Your task to perform on an android device: add a contact Image 0: 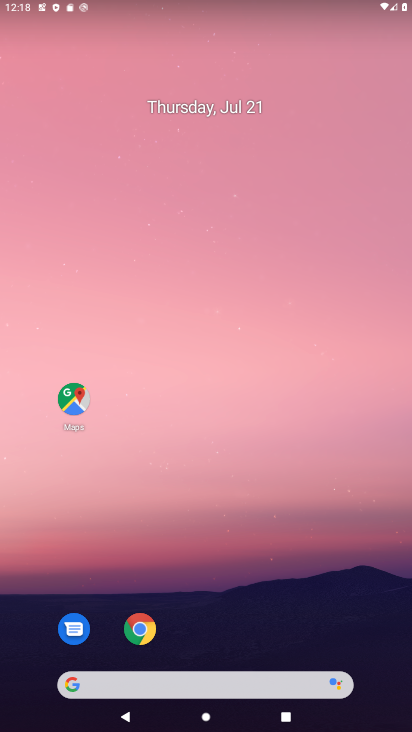
Step 0: drag from (347, 580) to (348, 142)
Your task to perform on an android device: add a contact Image 1: 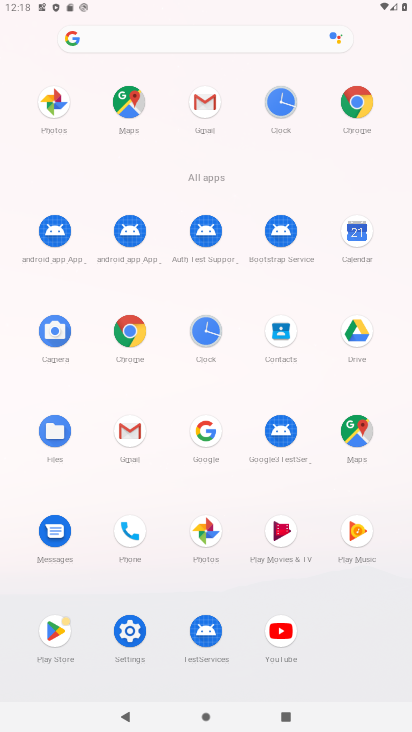
Step 1: click (282, 340)
Your task to perform on an android device: add a contact Image 2: 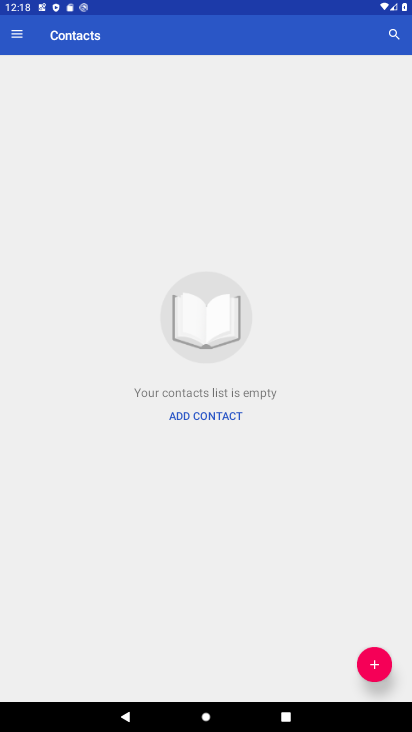
Step 2: click (385, 668)
Your task to perform on an android device: add a contact Image 3: 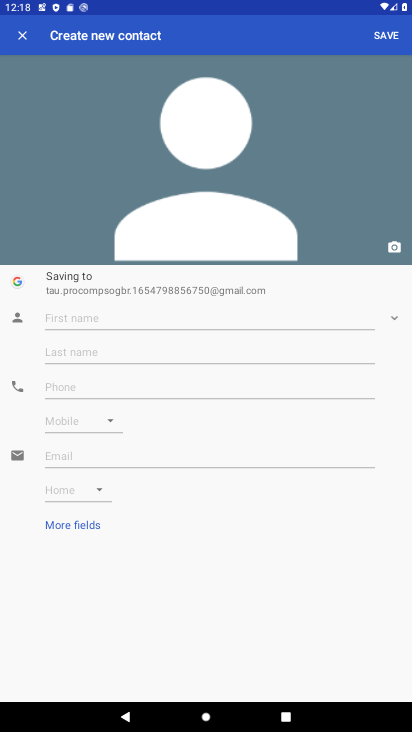
Step 3: click (93, 316)
Your task to perform on an android device: add a contact Image 4: 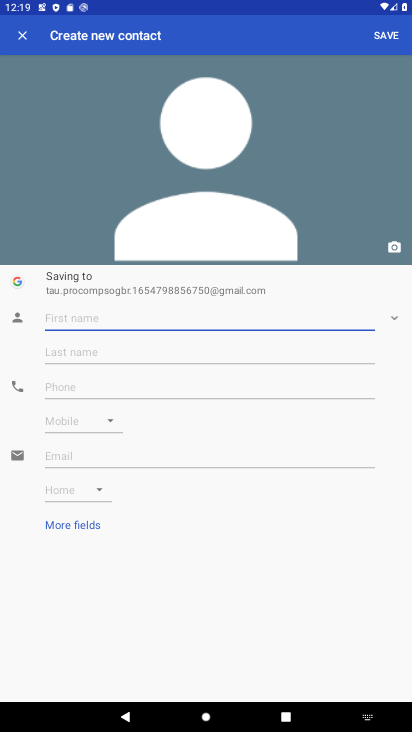
Step 4: type "fav"
Your task to perform on an android device: add a contact Image 5: 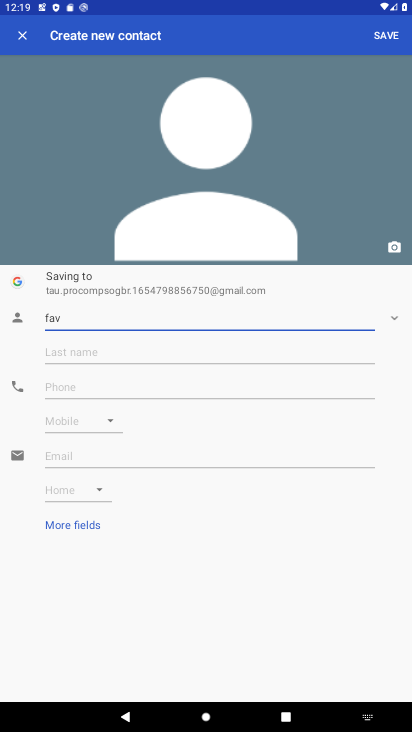
Step 5: click (115, 378)
Your task to perform on an android device: add a contact Image 6: 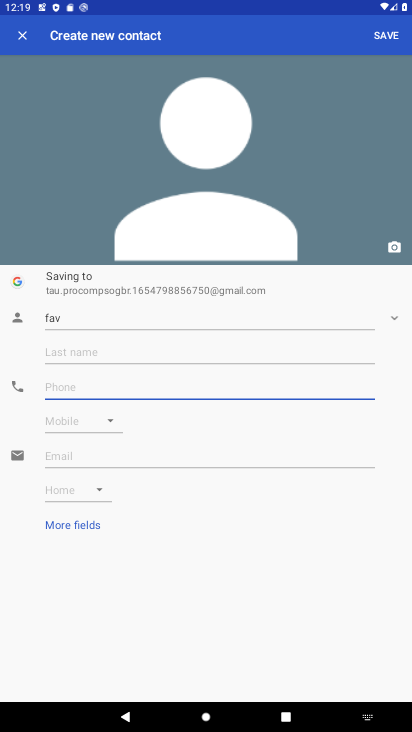
Step 6: type "1234567890"
Your task to perform on an android device: add a contact Image 7: 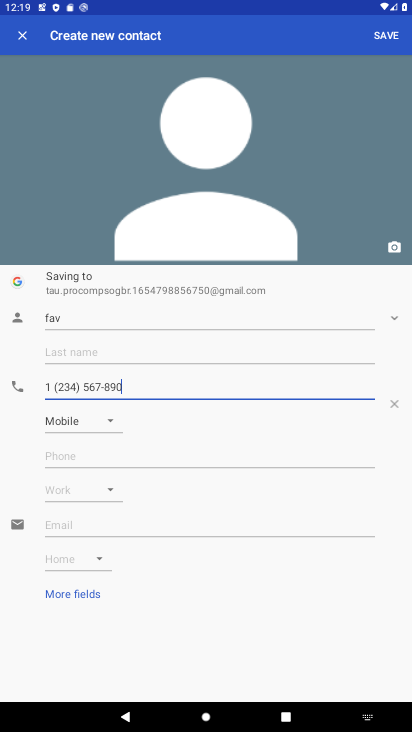
Step 7: click (382, 33)
Your task to perform on an android device: add a contact Image 8: 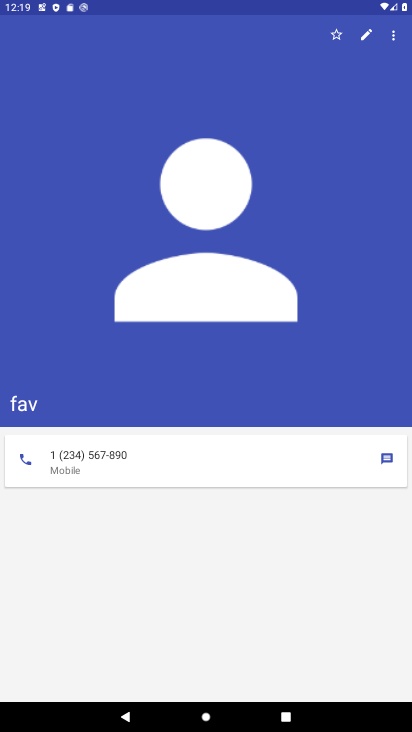
Step 8: task complete